Your task to perform on an android device: open the mobile data screen to see how much data has been used Image 0: 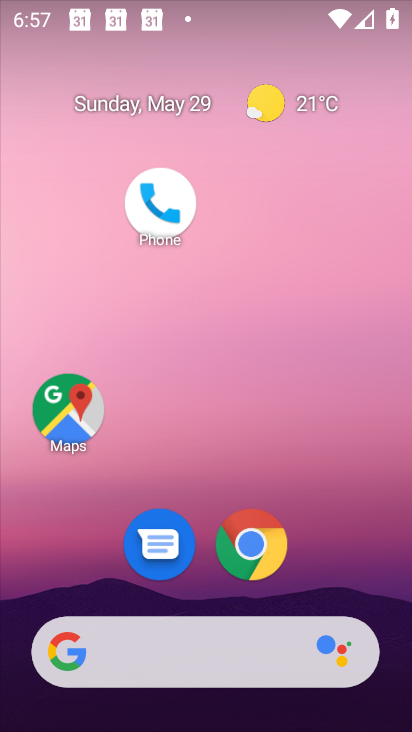
Step 0: drag from (331, 561) to (159, 57)
Your task to perform on an android device: open the mobile data screen to see how much data has been used Image 1: 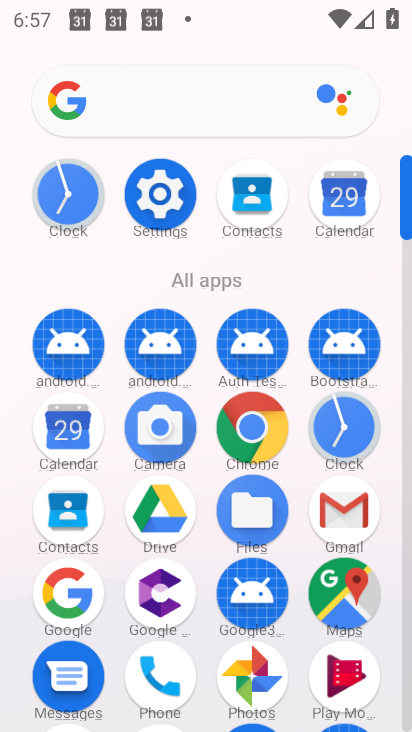
Step 1: click (162, 192)
Your task to perform on an android device: open the mobile data screen to see how much data has been used Image 2: 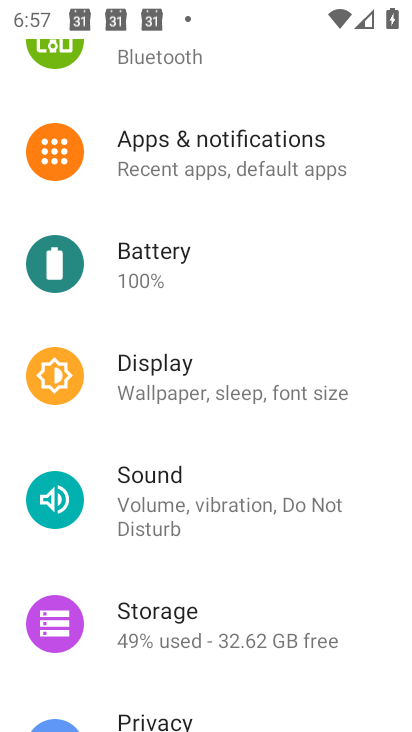
Step 2: drag from (241, 209) to (100, 695)
Your task to perform on an android device: open the mobile data screen to see how much data has been used Image 3: 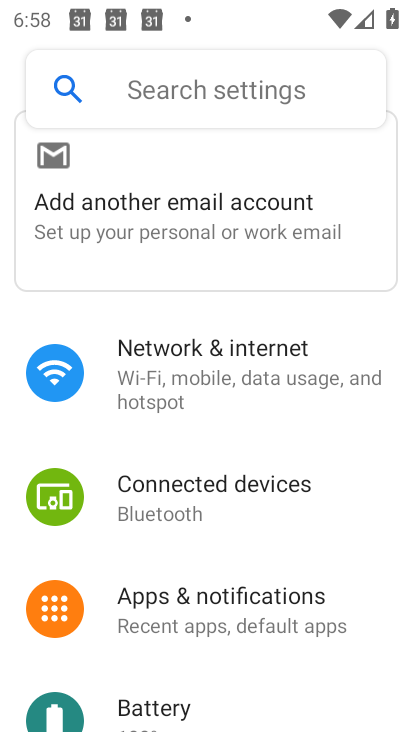
Step 3: click (221, 385)
Your task to perform on an android device: open the mobile data screen to see how much data has been used Image 4: 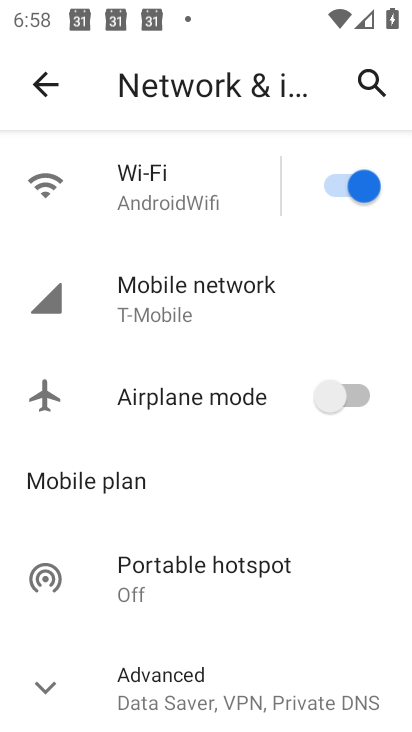
Step 4: click (191, 286)
Your task to perform on an android device: open the mobile data screen to see how much data has been used Image 5: 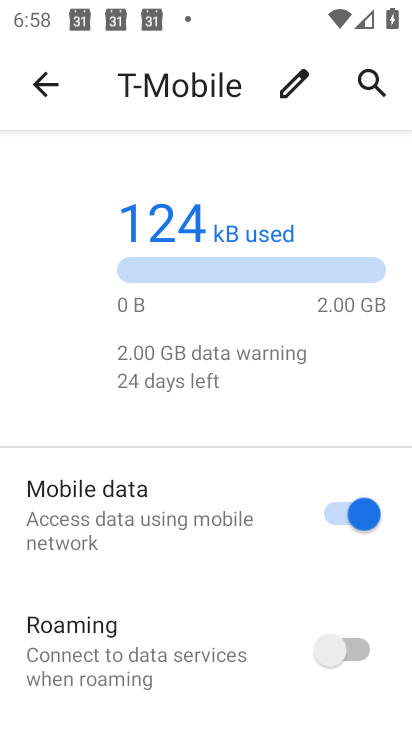
Step 5: task complete